Your task to perform on an android device: set the timer Image 0: 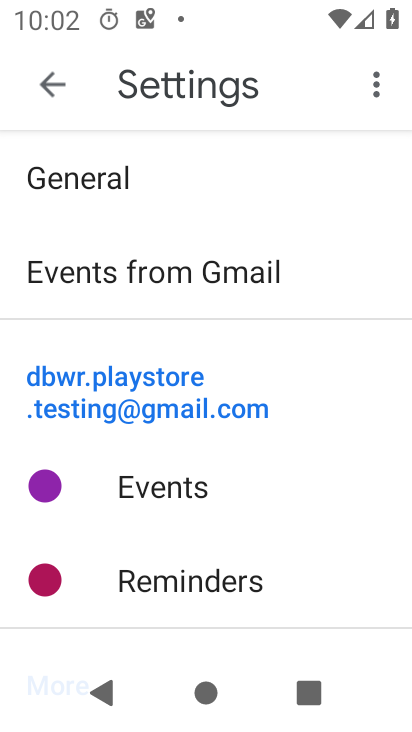
Step 0: press home button
Your task to perform on an android device: set the timer Image 1: 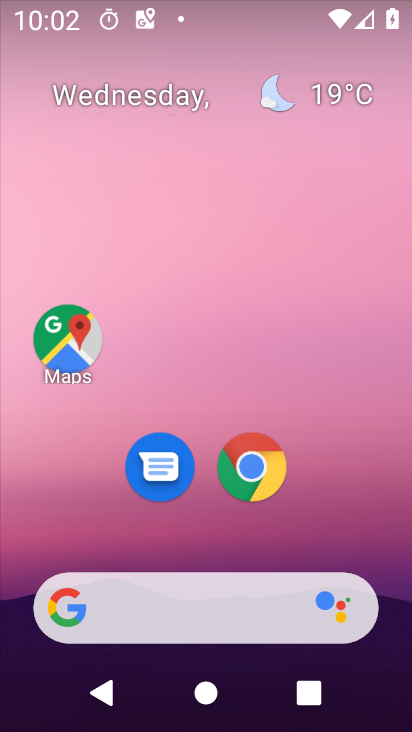
Step 1: drag from (329, 511) to (209, 88)
Your task to perform on an android device: set the timer Image 2: 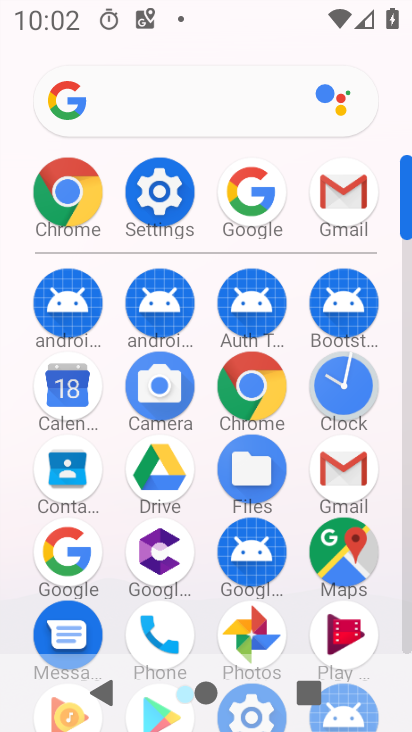
Step 2: click (342, 375)
Your task to perform on an android device: set the timer Image 3: 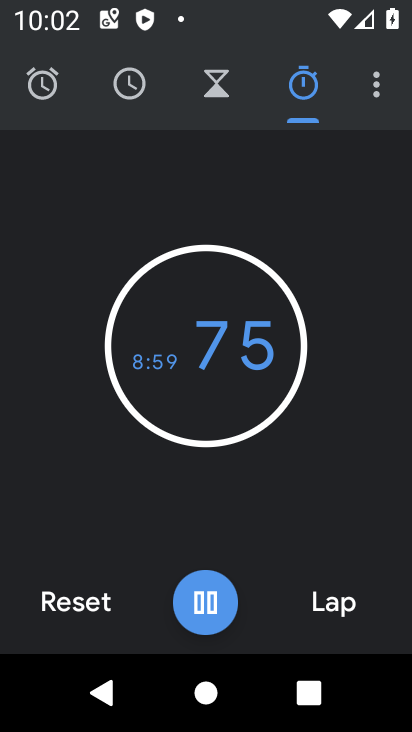
Step 3: click (72, 611)
Your task to perform on an android device: set the timer Image 4: 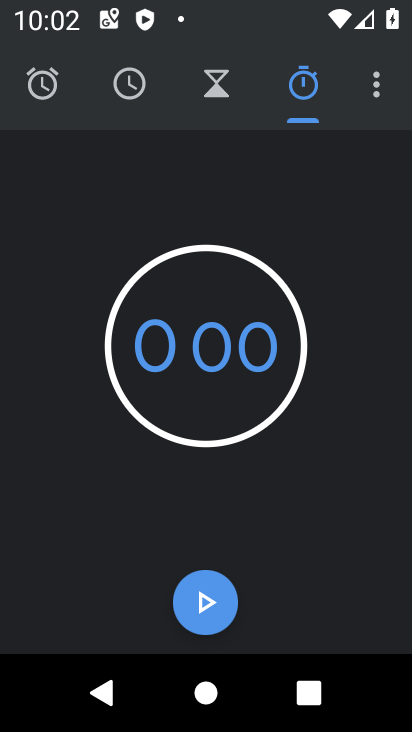
Step 4: click (190, 601)
Your task to perform on an android device: set the timer Image 5: 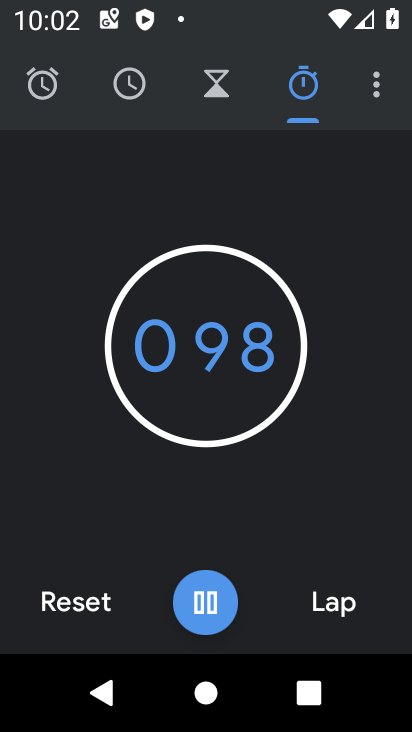
Step 5: task complete